Your task to perform on an android device: Open Chrome and go to settings Image 0: 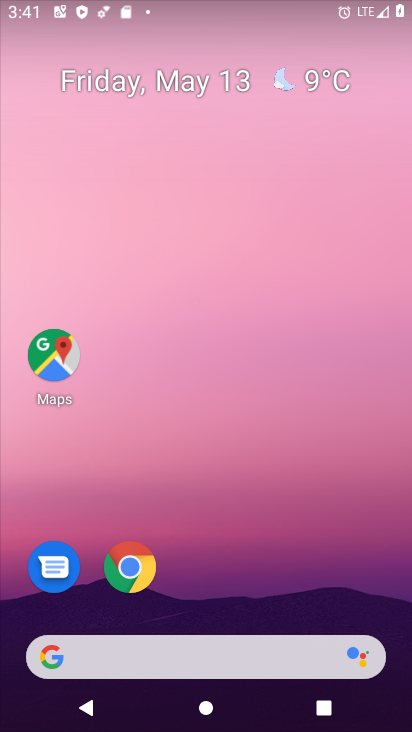
Step 0: click (123, 571)
Your task to perform on an android device: Open Chrome and go to settings Image 1: 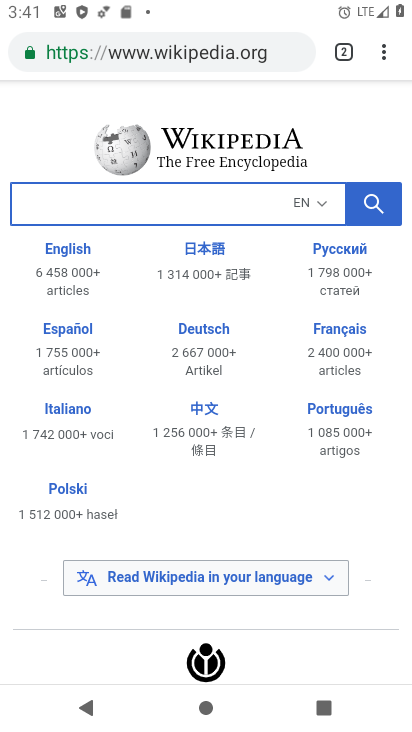
Step 1: click (385, 58)
Your task to perform on an android device: Open Chrome and go to settings Image 2: 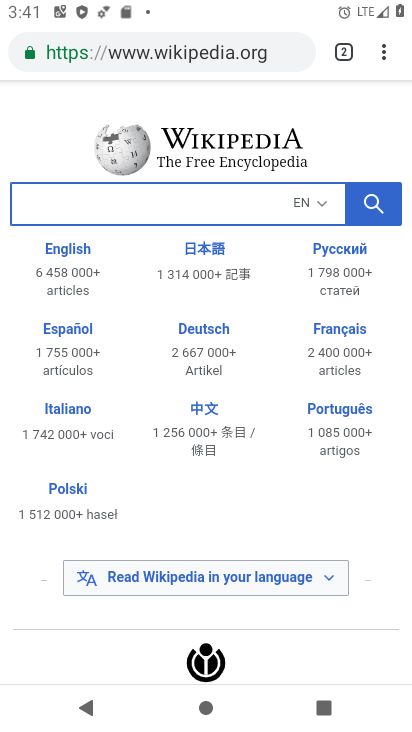
Step 2: click (387, 58)
Your task to perform on an android device: Open Chrome and go to settings Image 3: 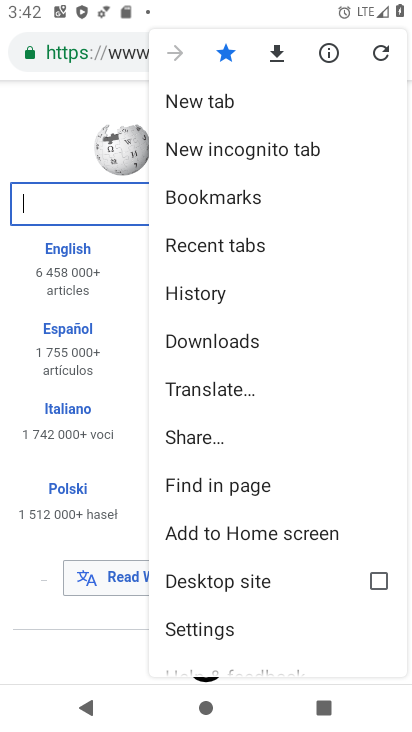
Step 3: click (201, 624)
Your task to perform on an android device: Open Chrome and go to settings Image 4: 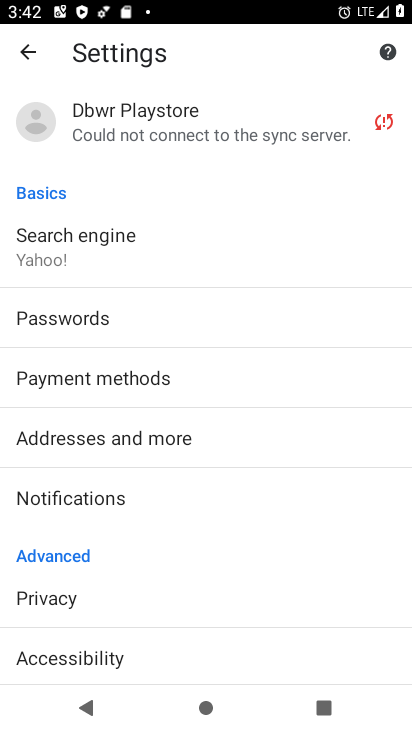
Step 4: task complete